Your task to perform on an android device: Go to internet settings Image 0: 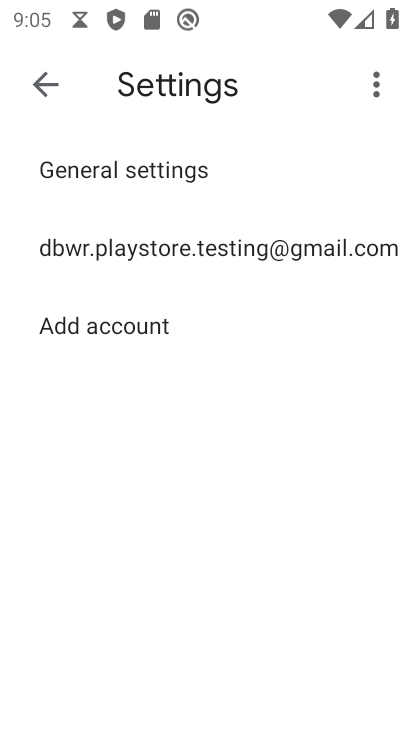
Step 0: press home button
Your task to perform on an android device: Go to internet settings Image 1: 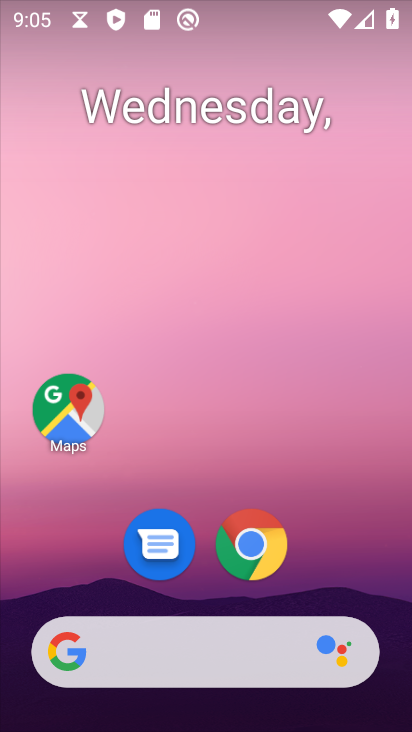
Step 1: drag from (174, 601) to (259, 157)
Your task to perform on an android device: Go to internet settings Image 2: 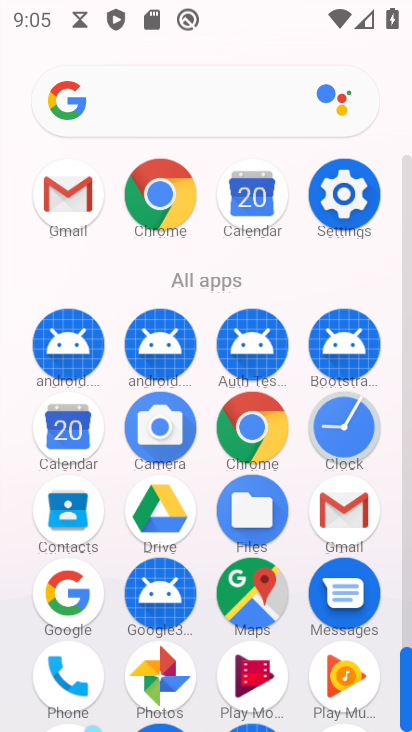
Step 2: click (334, 195)
Your task to perform on an android device: Go to internet settings Image 3: 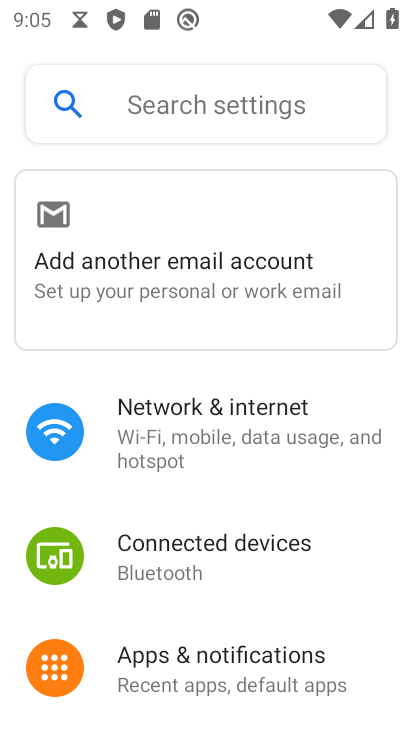
Step 3: click (218, 406)
Your task to perform on an android device: Go to internet settings Image 4: 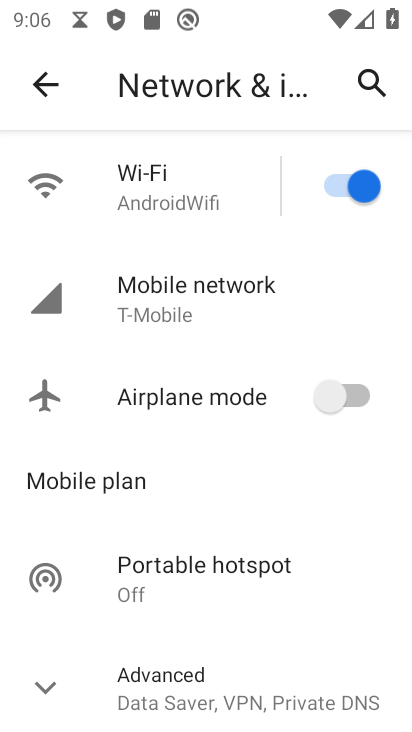
Step 4: task complete